Your task to perform on an android device: turn notification dots on Image 0: 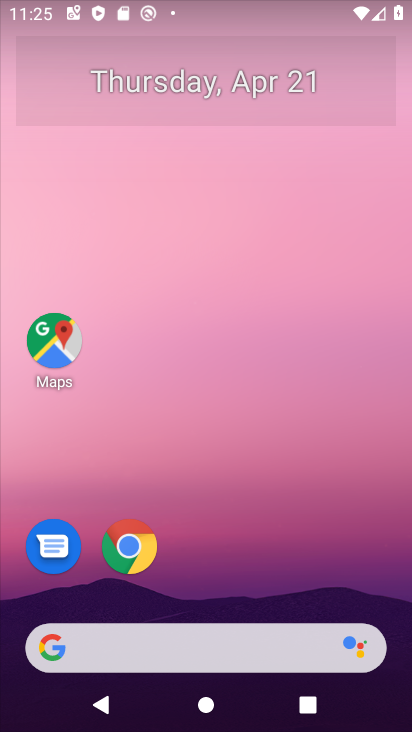
Step 0: drag from (249, 557) to (279, 56)
Your task to perform on an android device: turn notification dots on Image 1: 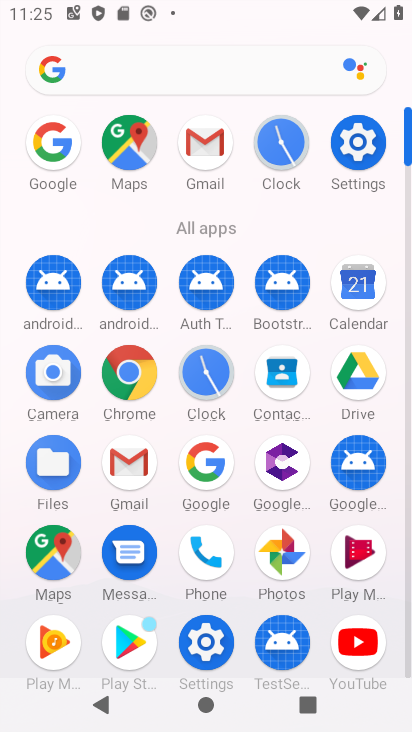
Step 1: click (359, 141)
Your task to perform on an android device: turn notification dots on Image 2: 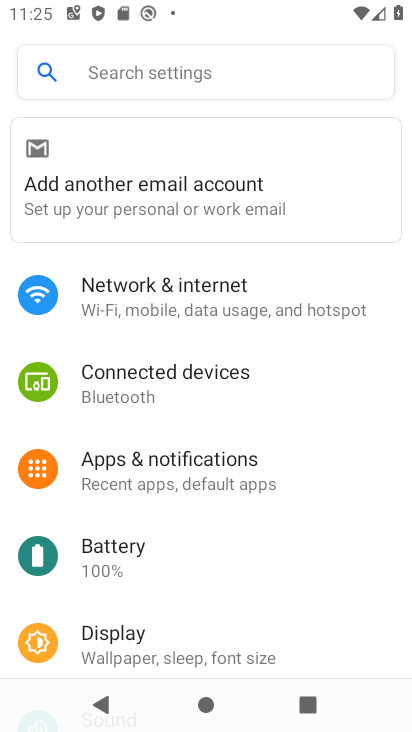
Step 2: click (169, 467)
Your task to perform on an android device: turn notification dots on Image 3: 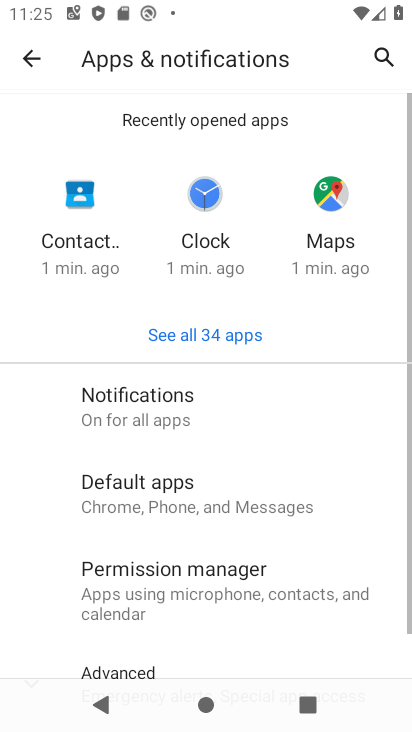
Step 3: click (176, 417)
Your task to perform on an android device: turn notification dots on Image 4: 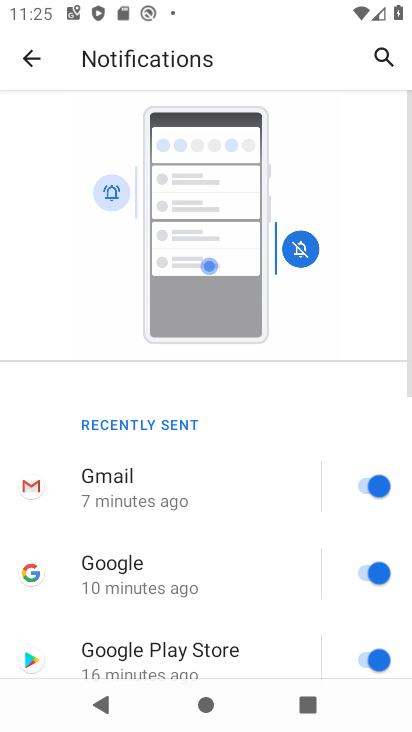
Step 4: drag from (224, 564) to (267, 14)
Your task to perform on an android device: turn notification dots on Image 5: 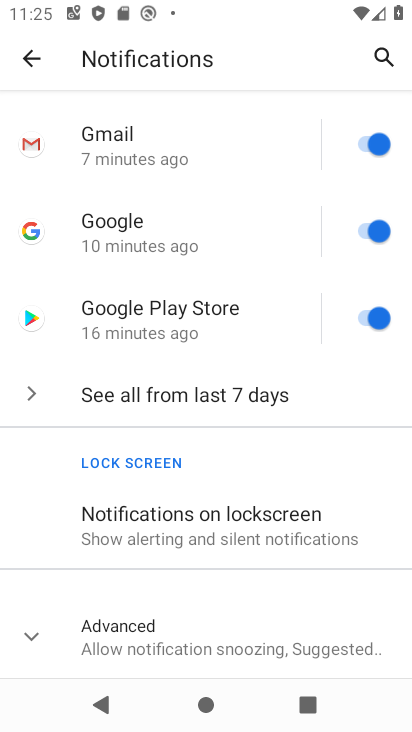
Step 5: click (139, 633)
Your task to perform on an android device: turn notification dots on Image 6: 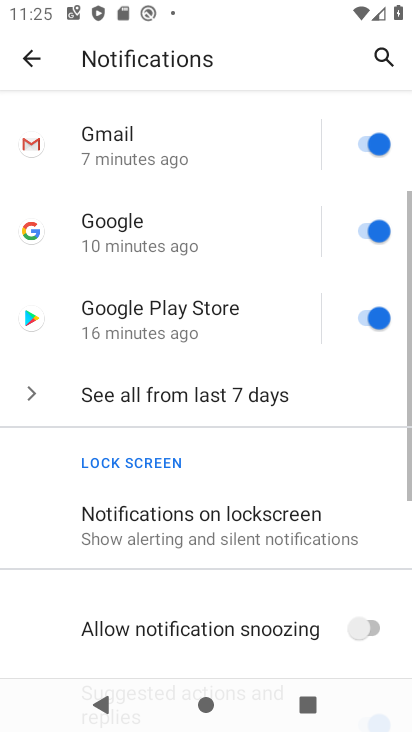
Step 6: task complete